Your task to perform on an android device: Go to battery settings Image 0: 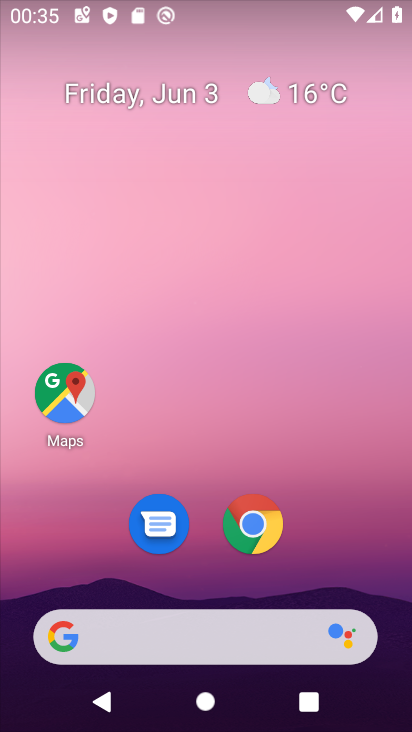
Step 0: drag from (314, 504) to (317, 26)
Your task to perform on an android device: Go to battery settings Image 1: 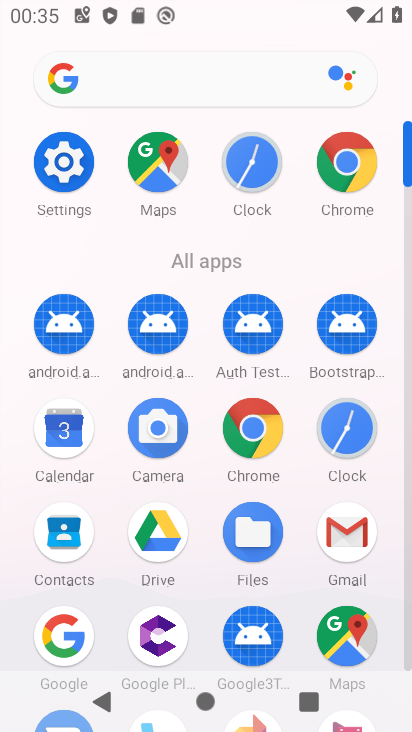
Step 1: click (63, 167)
Your task to perform on an android device: Go to battery settings Image 2: 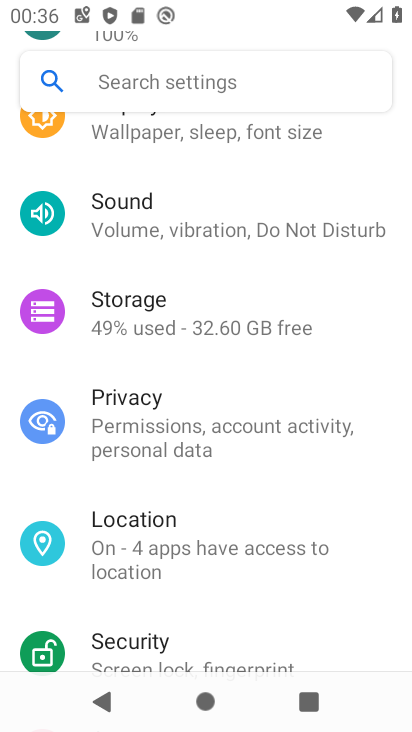
Step 2: drag from (232, 163) to (233, 577)
Your task to perform on an android device: Go to battery settings Image 3: 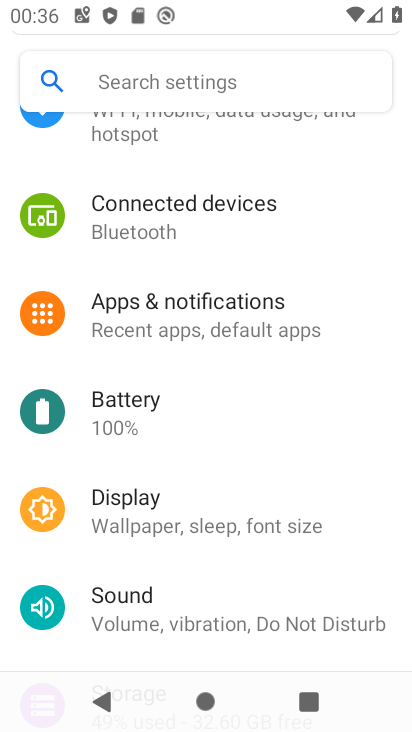
Step 3: click (175, 409)
Your task to perform on an android device: Go to battery settings Image 4: 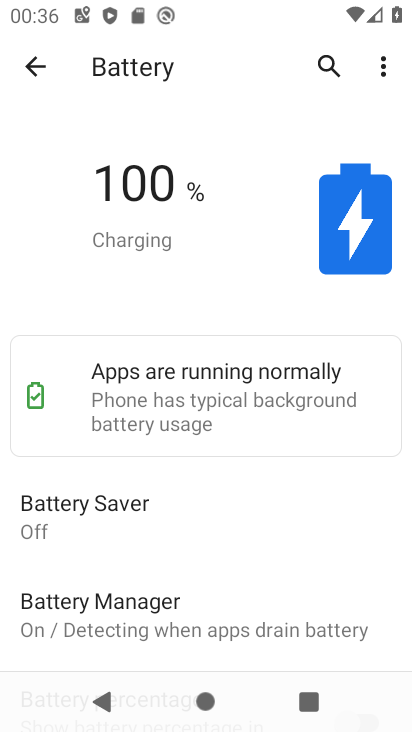
Step 4: task complete